Your task to perform on an android device: toggle translation in the chrome app Image 0: 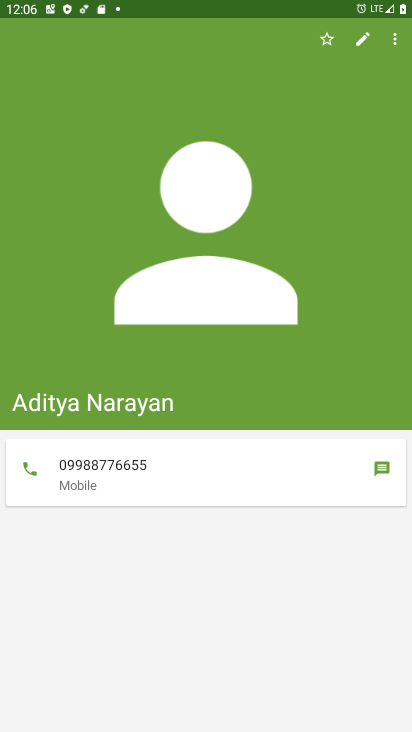
Step 0: press home button
Your task to perform on an android device: toggle translation in the chrome app Image 1: 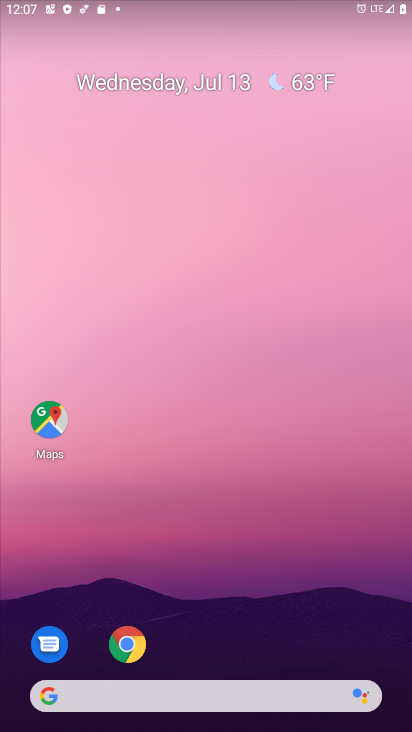
Step 1: click (130, 645)
Your task to perform on an android device: toggle translation in the chrome app Image 2: 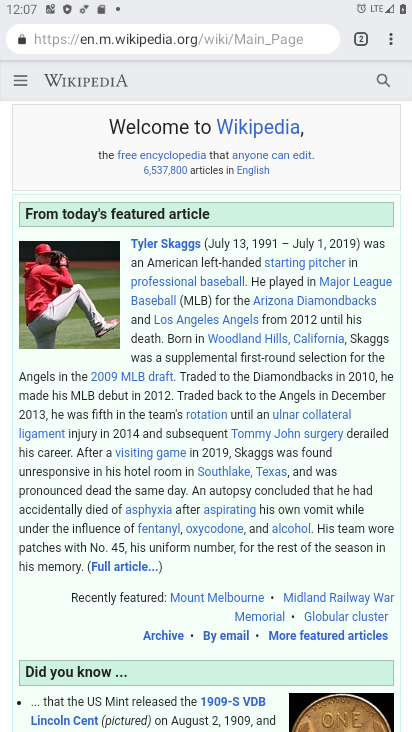
Step 2: click (392, 41)
Your task to perform on an android device: toggle translation in the chrome app Image 3: 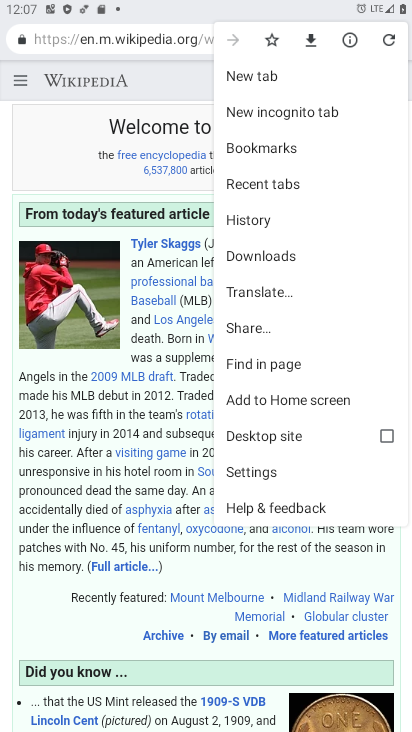
Step 3: click (259, 470)
Your task to perform on an android device: toggle translation in the chrome app Image 4: 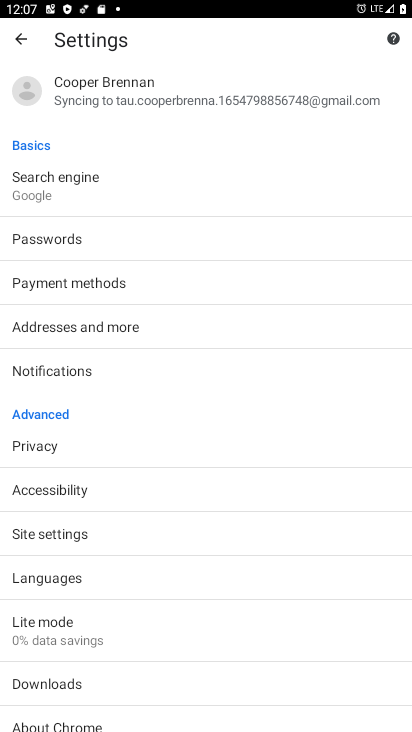
Step 4: click (68, 577)
Your task to perform on an android device: toggle translation in the chrome app Image 5: 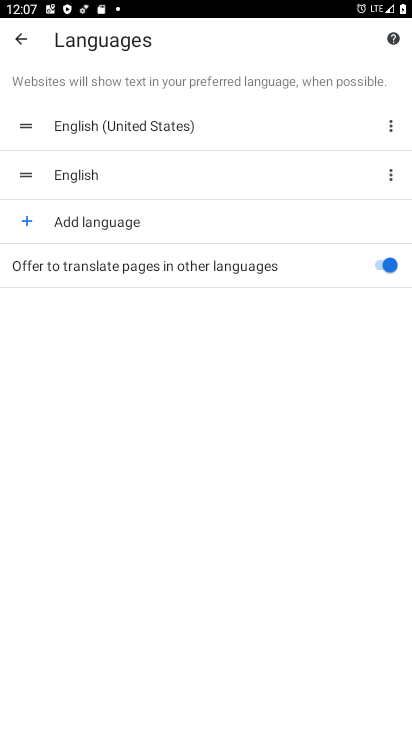
Step 5: click (383, 265)
Your task to perform on an android device: toggle translation in the chrome app Image 6: 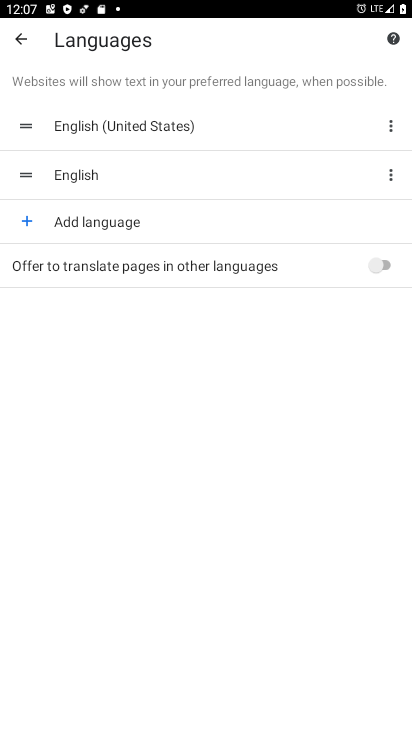
Step 6: task complete